Your task to perform on an android device: Go to settings Image 0: 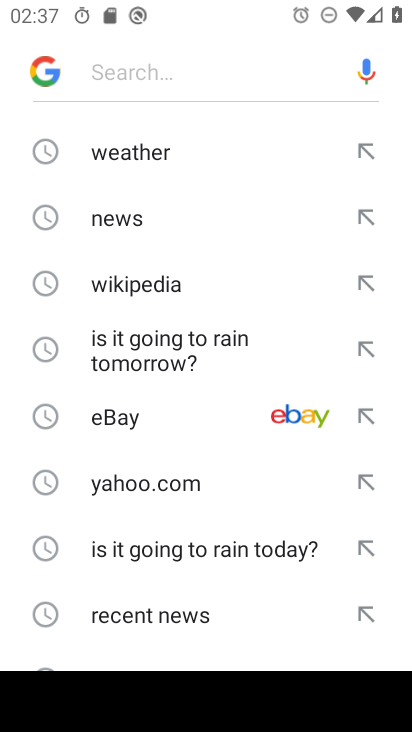
Step 0: press home button
Your task to perform on an android device: Go to settings Image 1: 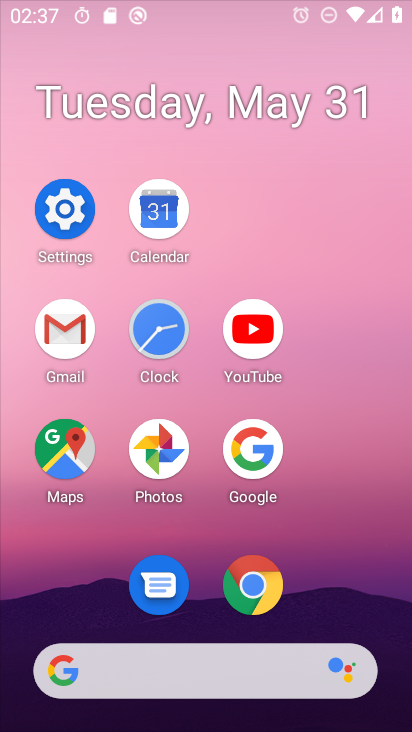
Step 1: click (67, 206)
Your task to perform on an android device: Go to settings Image 2: 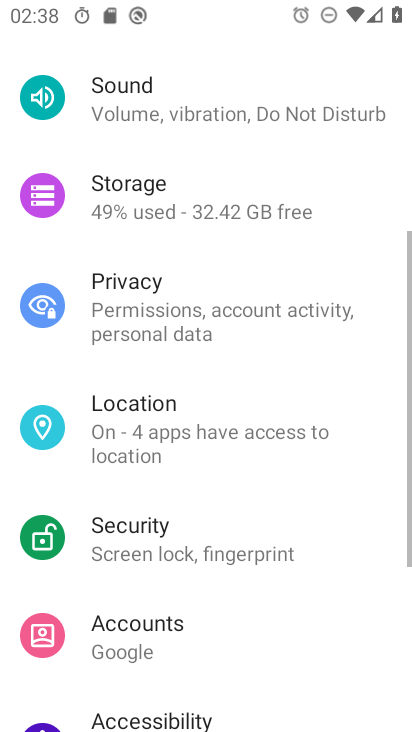
Step 2: task complete